Your task to perform on an android device: install app "Skype" Image 0: 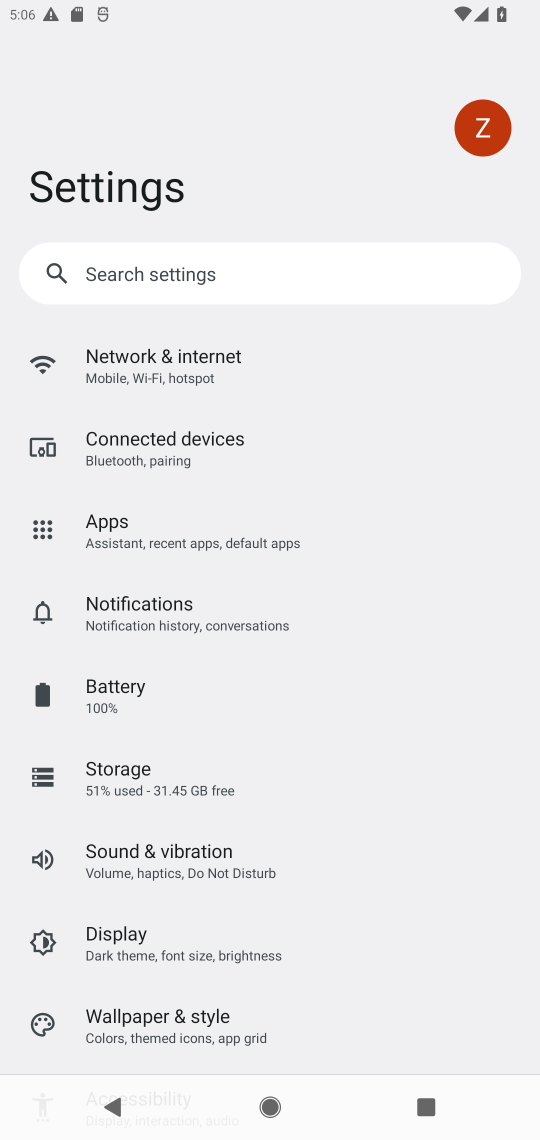
Step 0: press home button
Your task to perform on an android device: install app "Skype" Image 1: 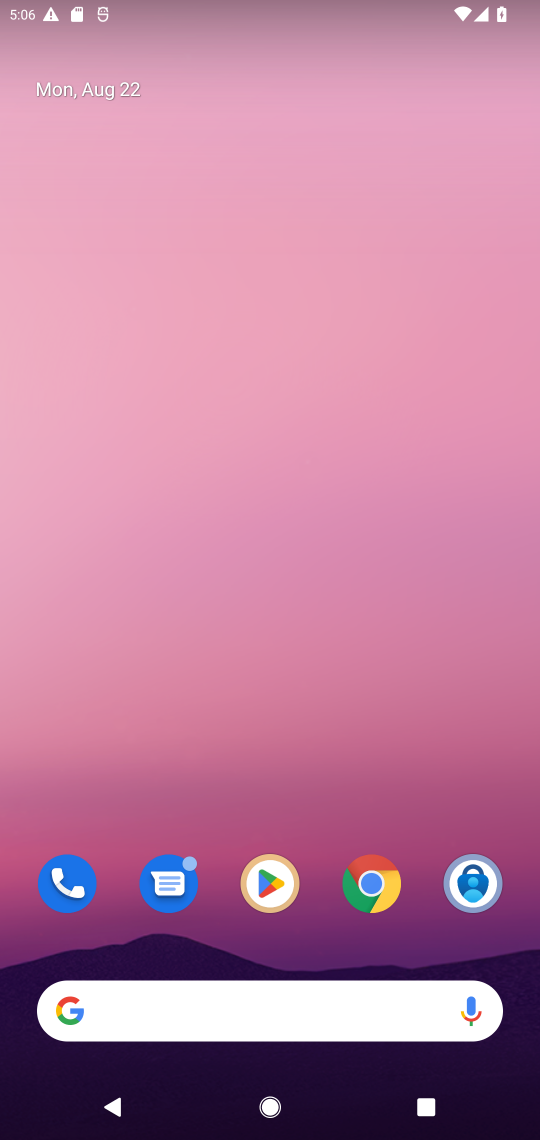
Step 1: drag from (262, 839) to (236, 360)
Your task to perform on an android device: install app "Skype" Image 2: 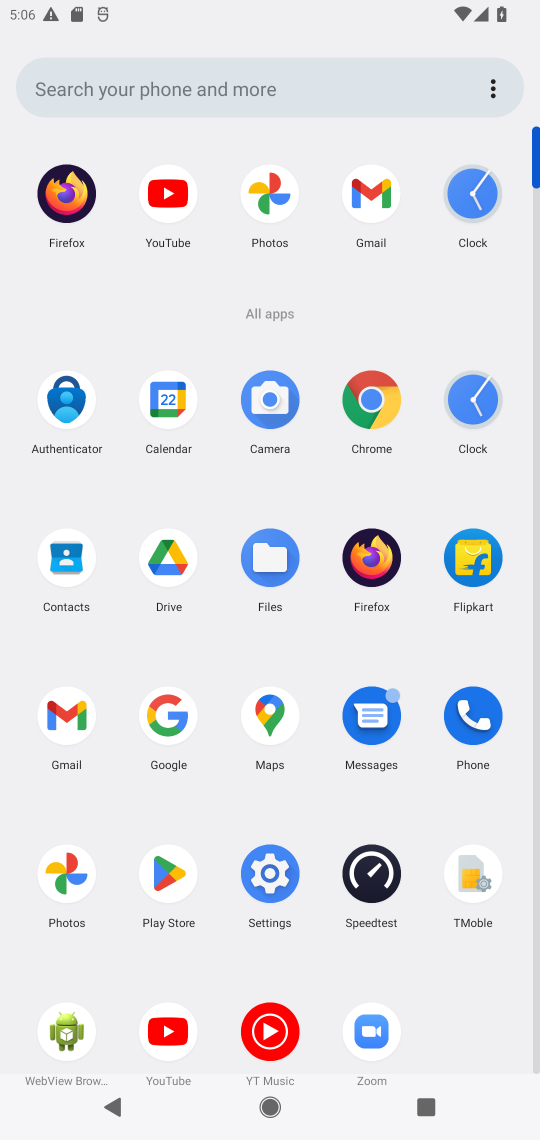
Step 2: click (154, 883)
Your task to perform on an android device: install app "Skype" Image 3: 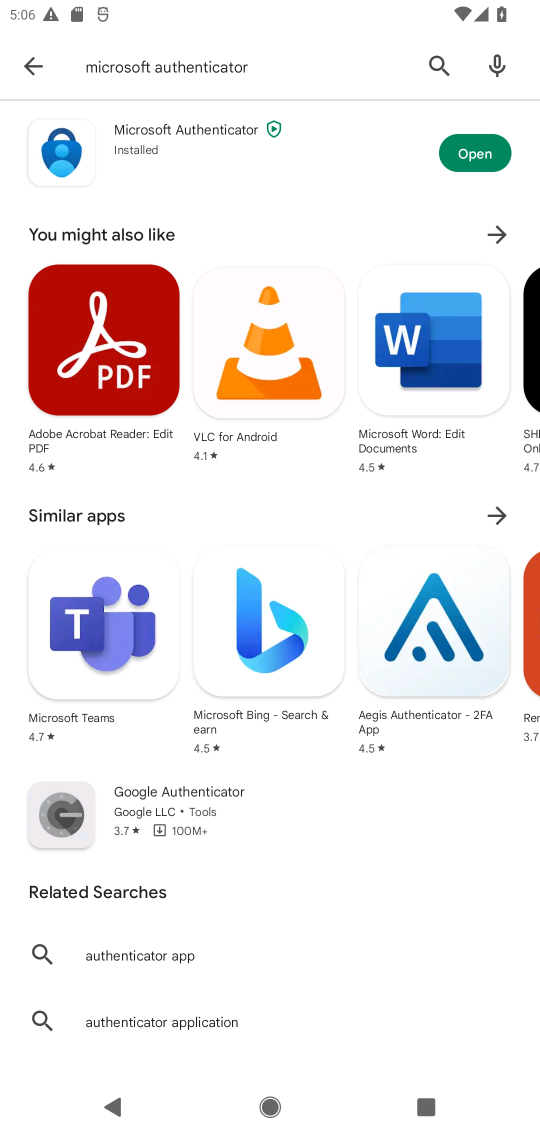
Step 3: click (430, 60)
Your task to perform on an android device: install app "Skype" Image 4: 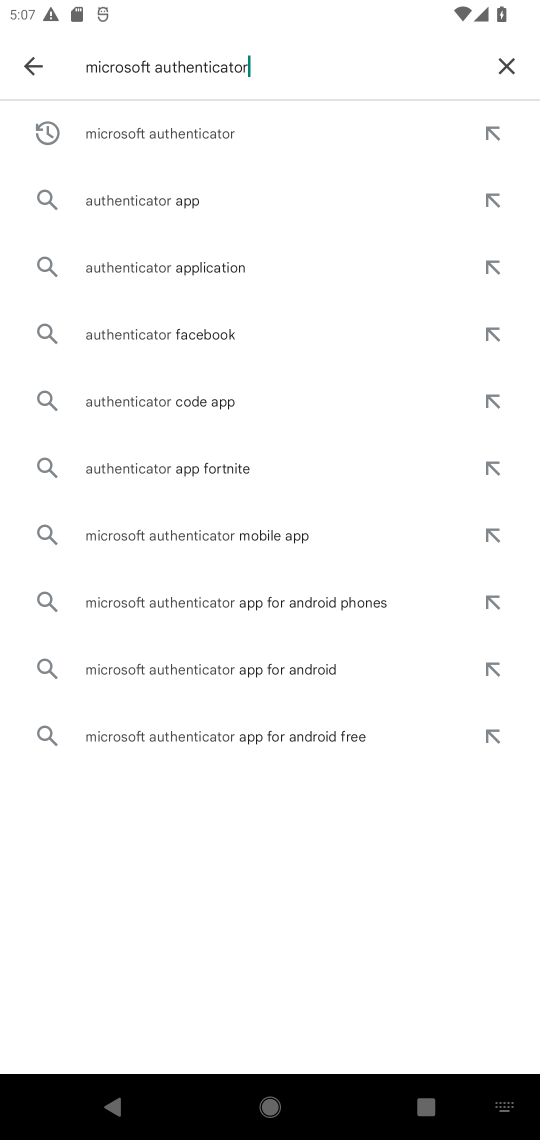
Step 4: click (508, 66)
Your task to perform on an android device: install app "Skype" Image 5: 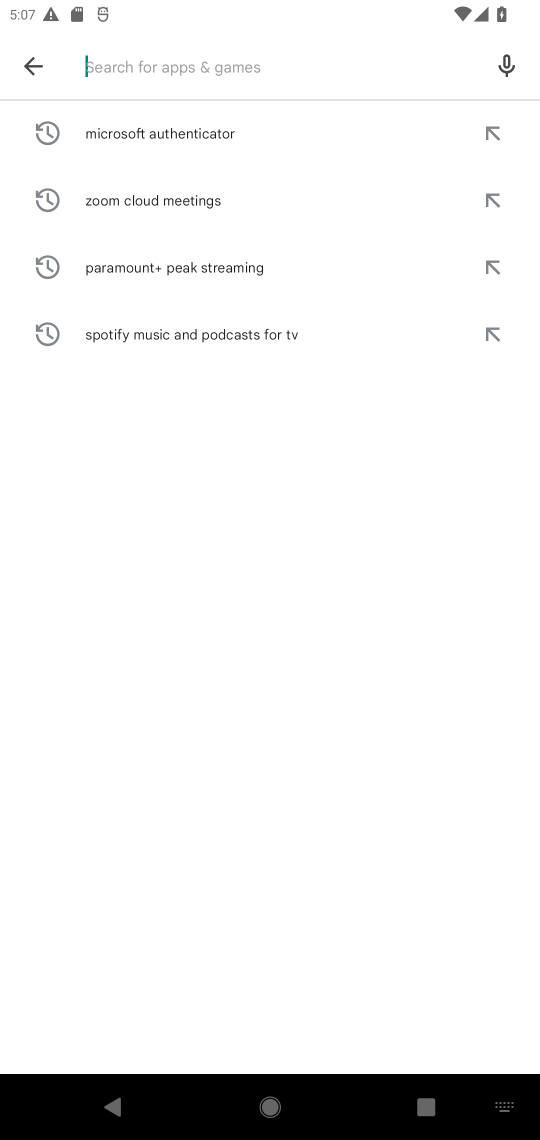
Step 5: type "Microsoft Authenticator"
Your task to perform on an android device: install app "Skype" Image 6: 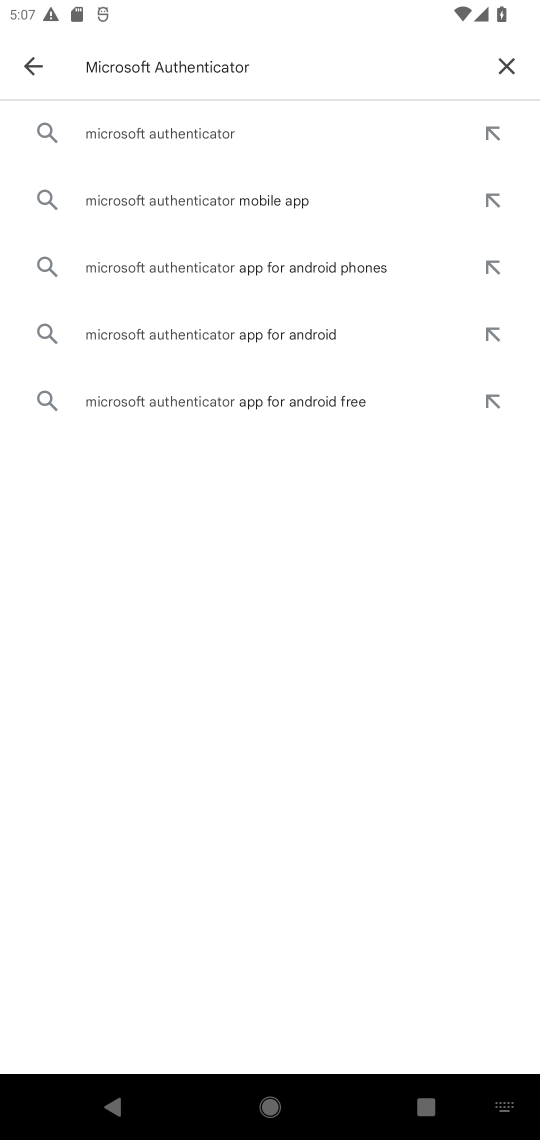
Step 6: click (504, 72)
Your task to perform on an android device: install app "Skype" Image 7: 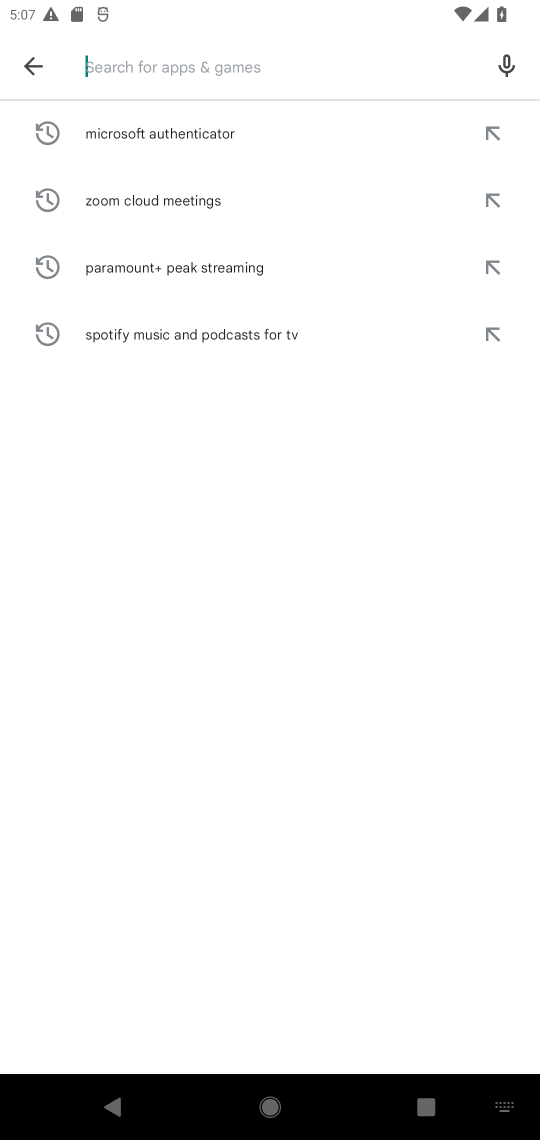
Step 7: type "Skype"
Your task to perform on an android device: install app "Skype" Image 8: 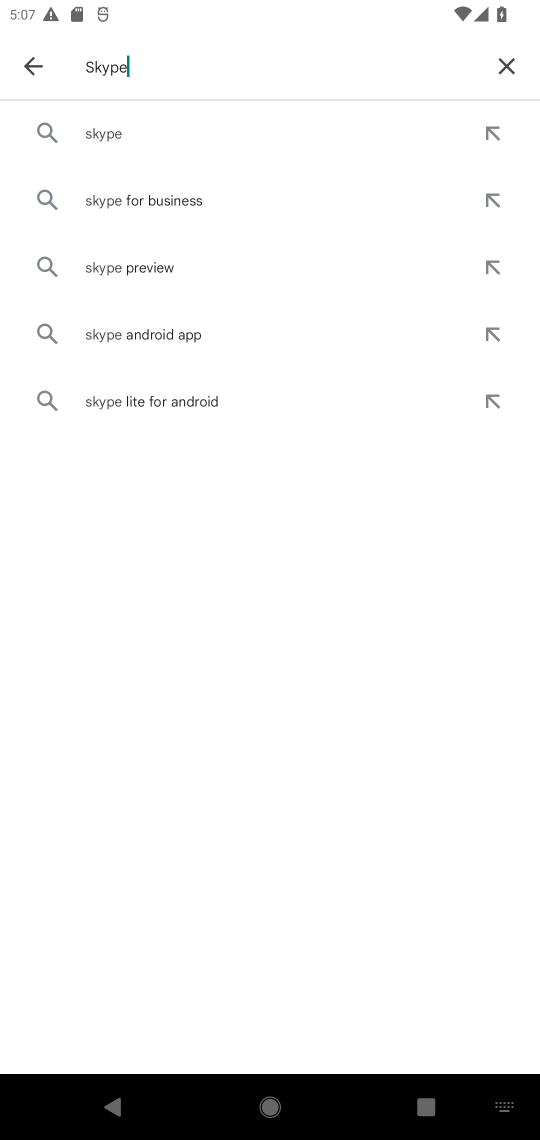
Step 8: click (109, 137)
Your task to perform on an android device: install app "Skype" Image 9: 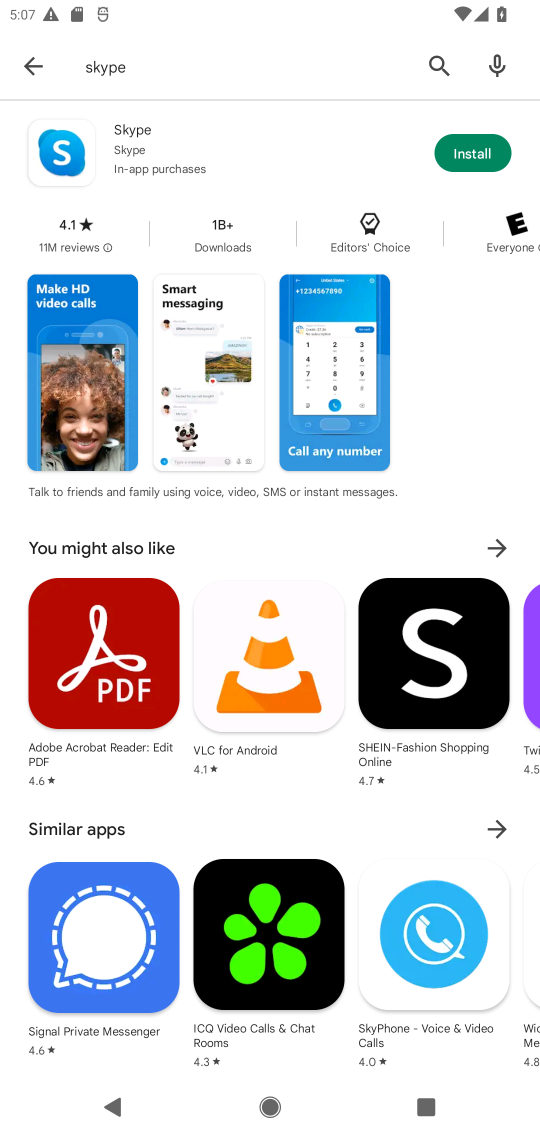
Step 9: click (468, 161)
Your task to perform on an android device: install app "Skype" Image 10: 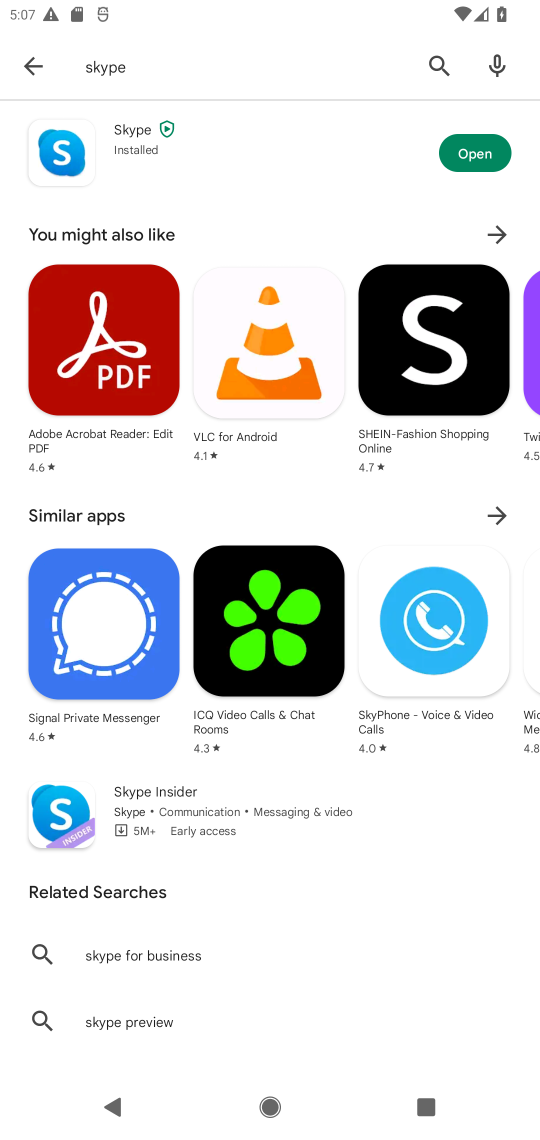
Step 10: click (470, 155)
Your task to perform on an android device: install app "Skype" Image 11: 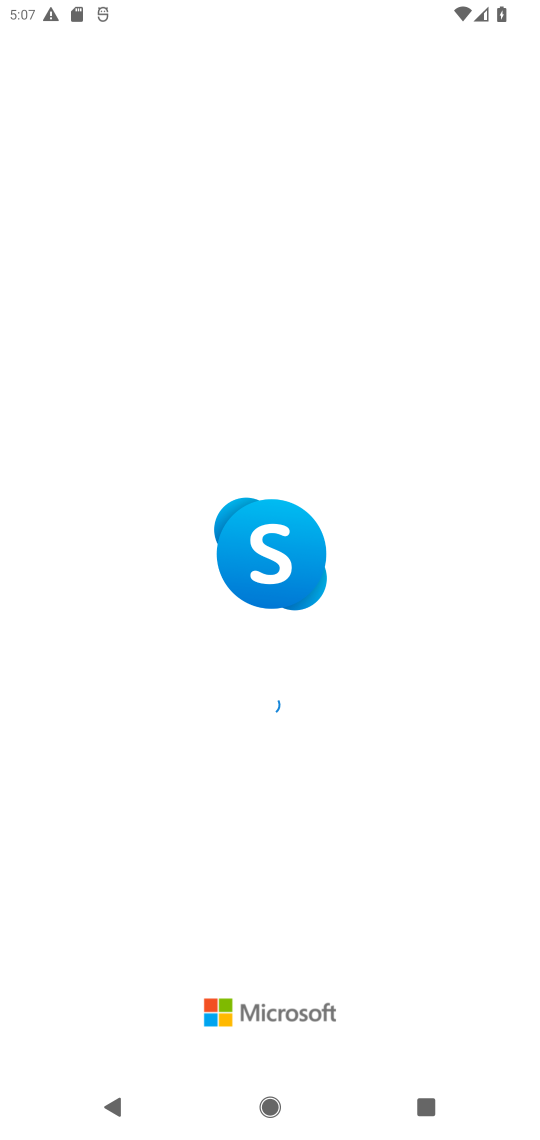
Step 11: task complete